Your task to perform on an android device: Play the last video I watched on Youtube Image 0: 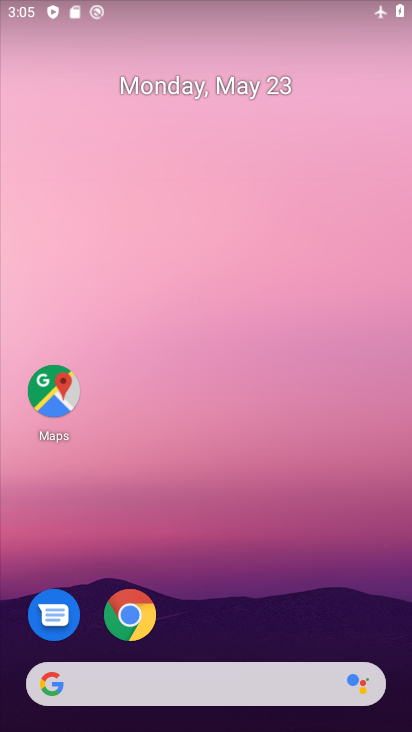
Step 0: drag from (264, 571) to (226, 174)
Your task to perform on an android device: Play the last video I watched on Youtube Image 1: 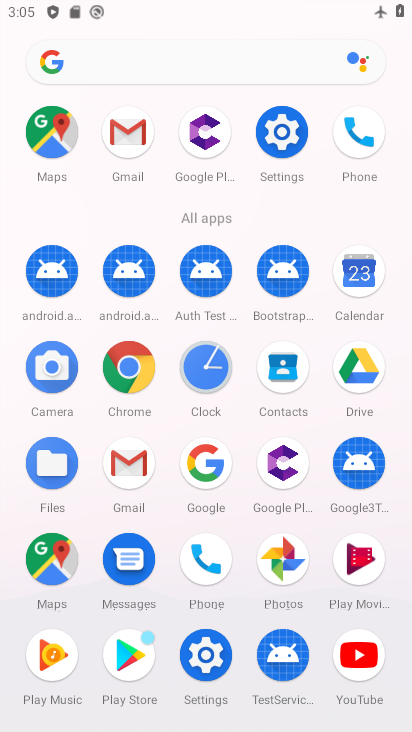
Step 1: click (360, 652)
Your task to perform on an android device: Play the last video I watched on Youtube Image 2: 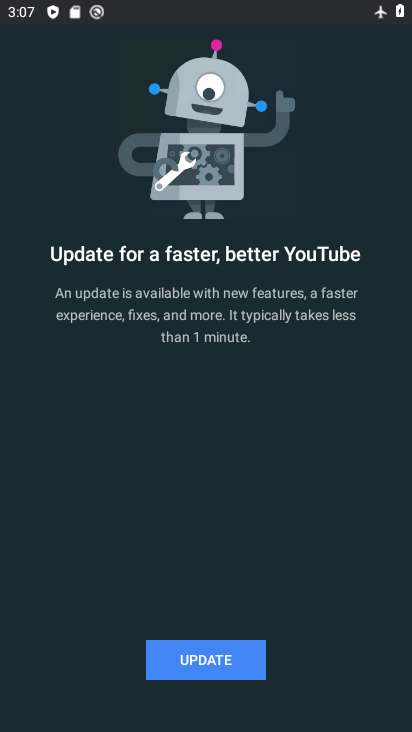
Step 2: task complete